Your task to perform on an android device: Turn off the flashlight Image 0: 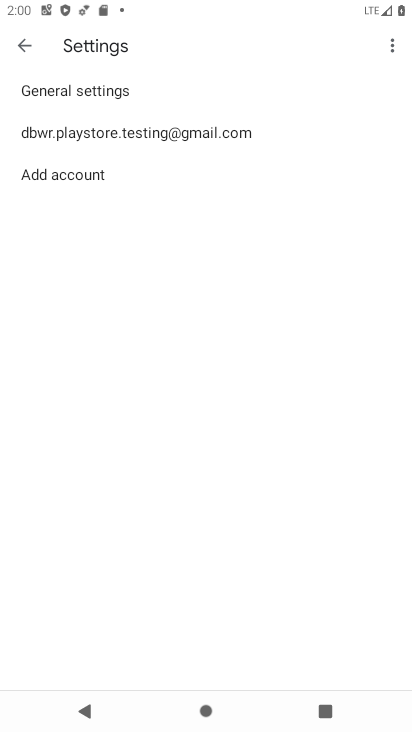
Step 0: drag from (353, 71) to (320, 588)
Your task to perform on an android device: Turn off the flashlight Image 1: 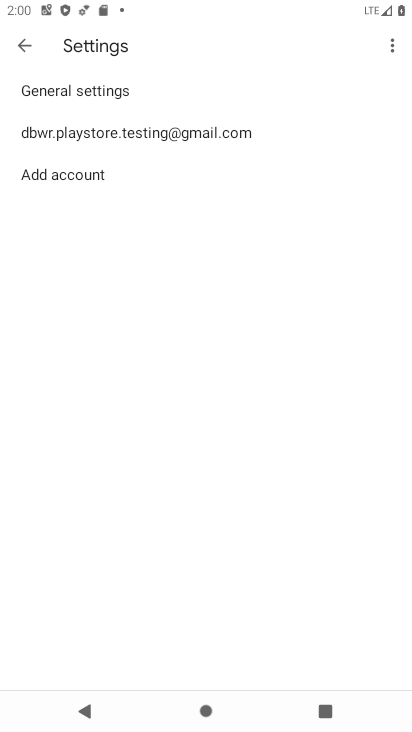
Step 1: drag from (237, 14) to (248, 582)
Your task to perform on an android device: Turn off the flashlight Image 2: 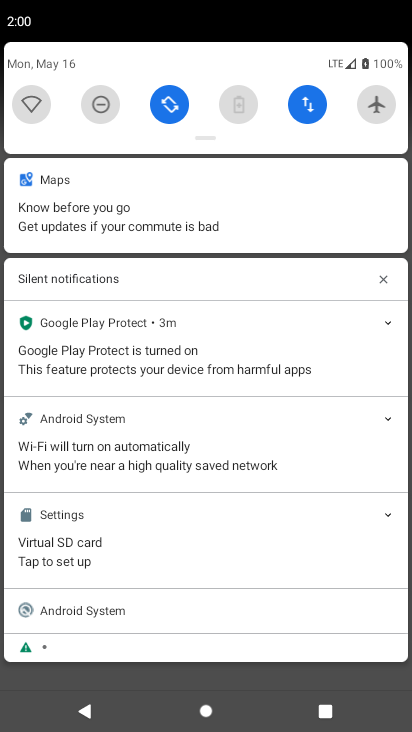
Step 2: drag from (203, 138) to (228, 577)
Your task to perform on an android device: Turn off the flashlight Image 3: 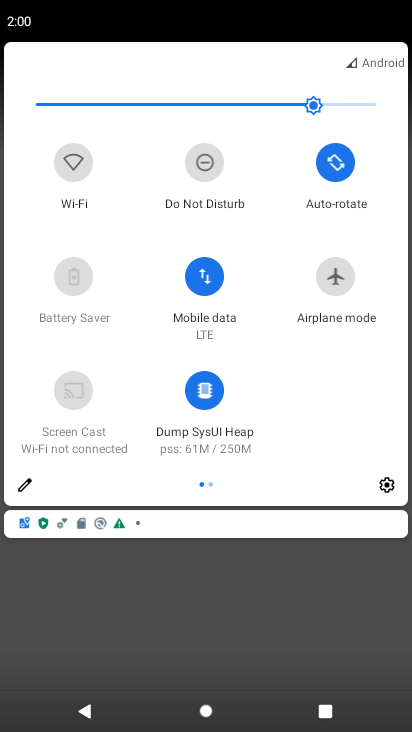
Step 3: click (66, 356)
Your task to perform on an android device: Turn off the flashlight Image 4: 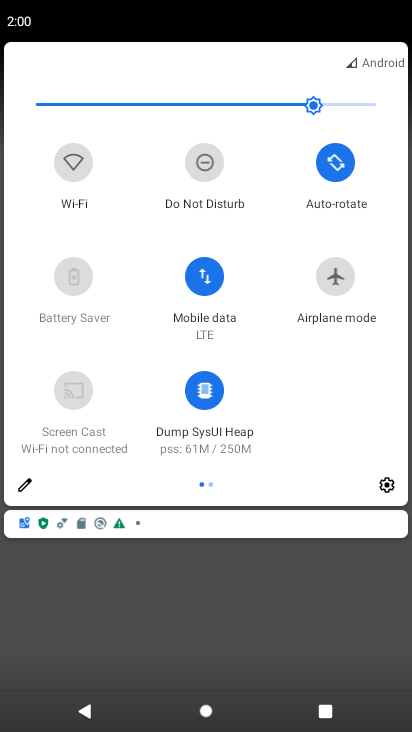
Step 4: task complete